Your task to perform on an android device: Go to battery settings Image 0: 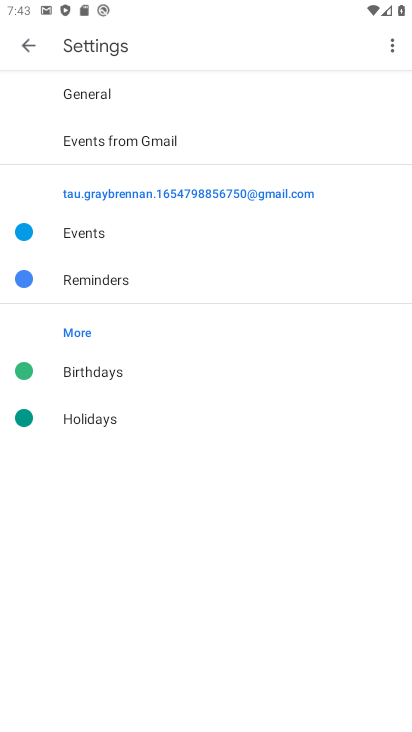
Step 0: press home button
Your task to perform on an android device: Go to battery settings Image 1: 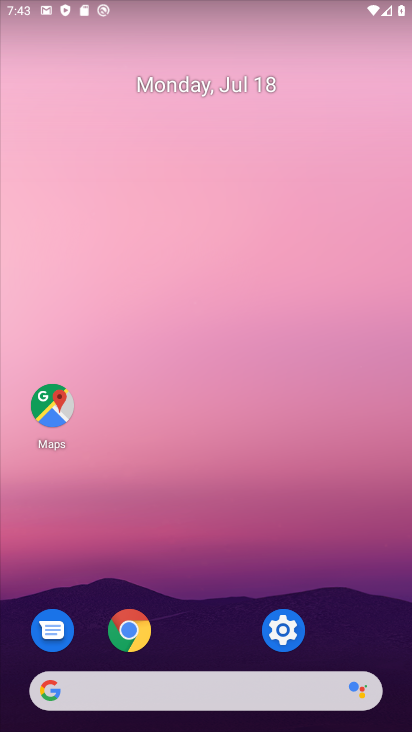
Step 1: click (297, 625)
Your task to perform on an android device: Go to battery settings Image 2: 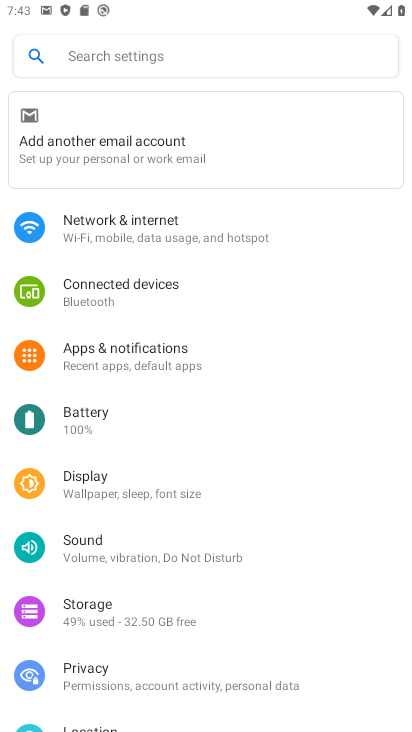
Step 2: click (89, 425)
Your task to perform on an android device: Go to battery settings Image 3: 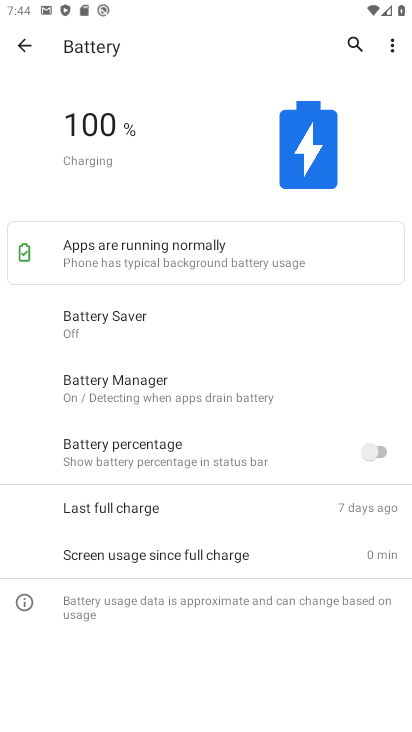
Step 3: task complete